Your task to perform on an android device: What's the weather like in Mexico City? Image 0: 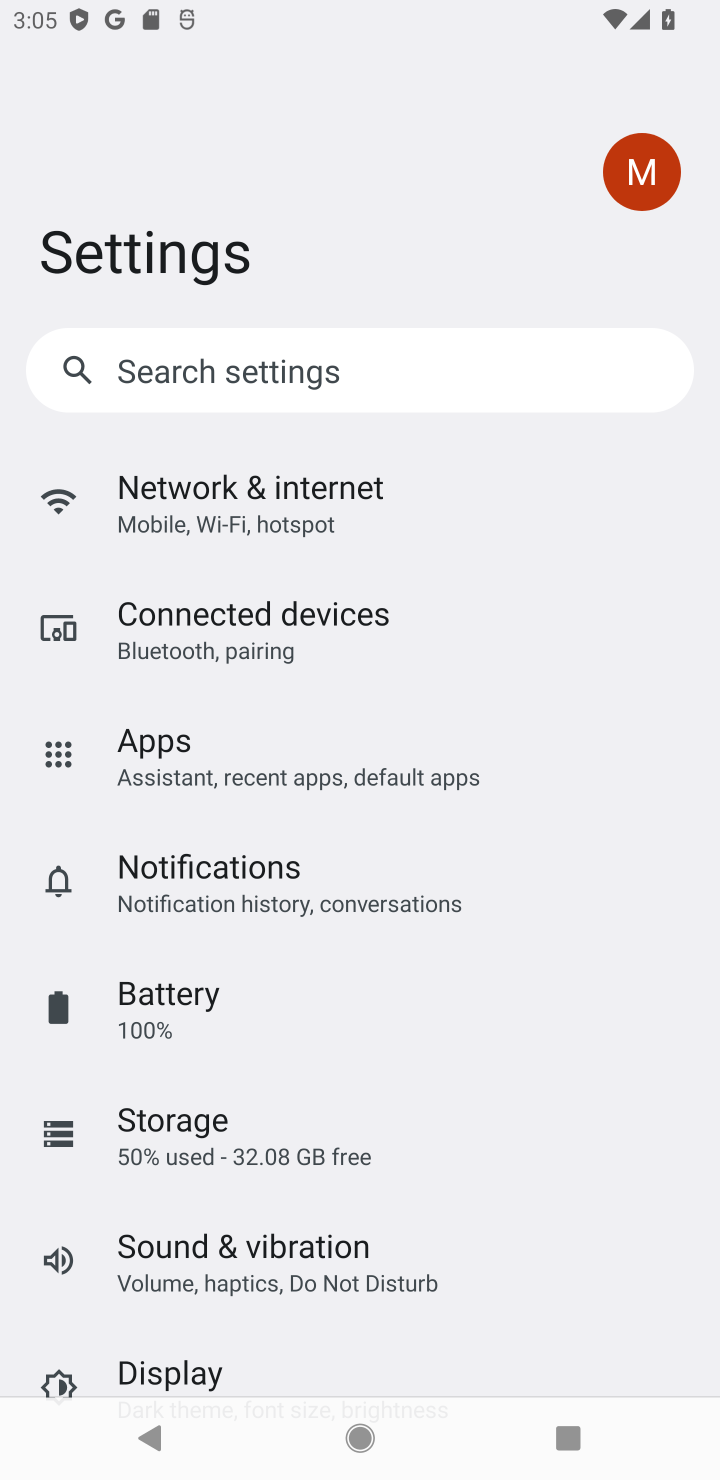
Step 0: press home button
Your task to perform on an android device: What's the weather like in Mexico City? Image 1: 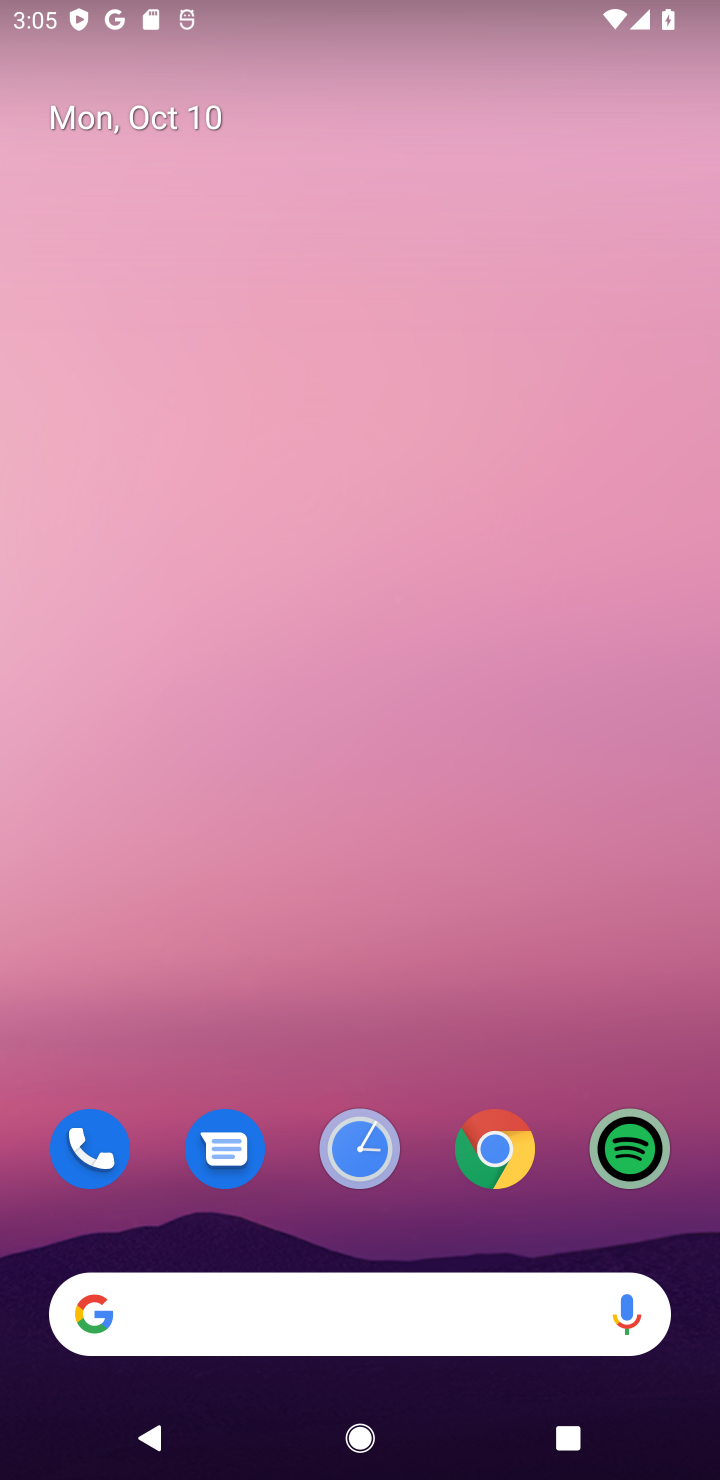
Step 1: click (378, 1332)
Your task to perform on an android device: What's the weather like in Mexico City? Image 2: 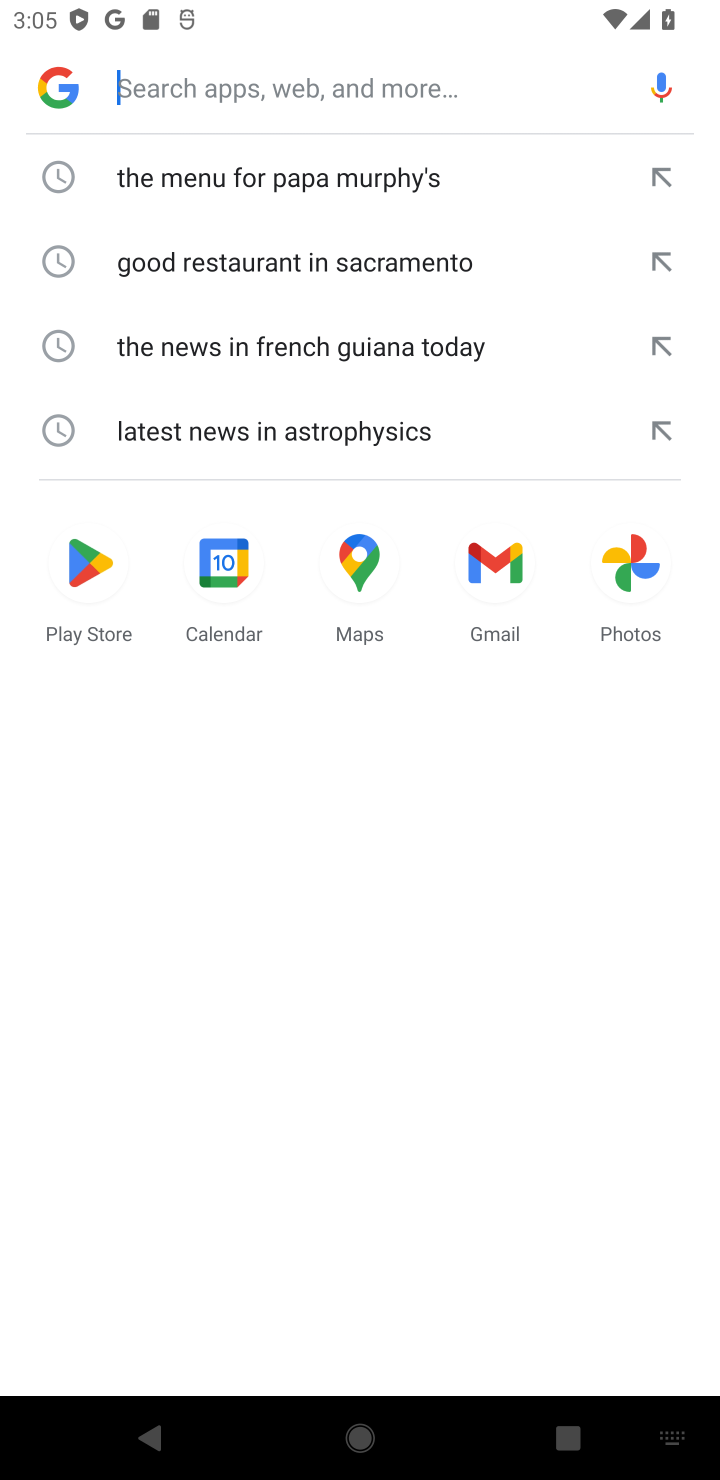
Step 2: type "the weather like in Mexico City"
Your task to perform on an android device: What's the weather like in Mexico City? Image 3: 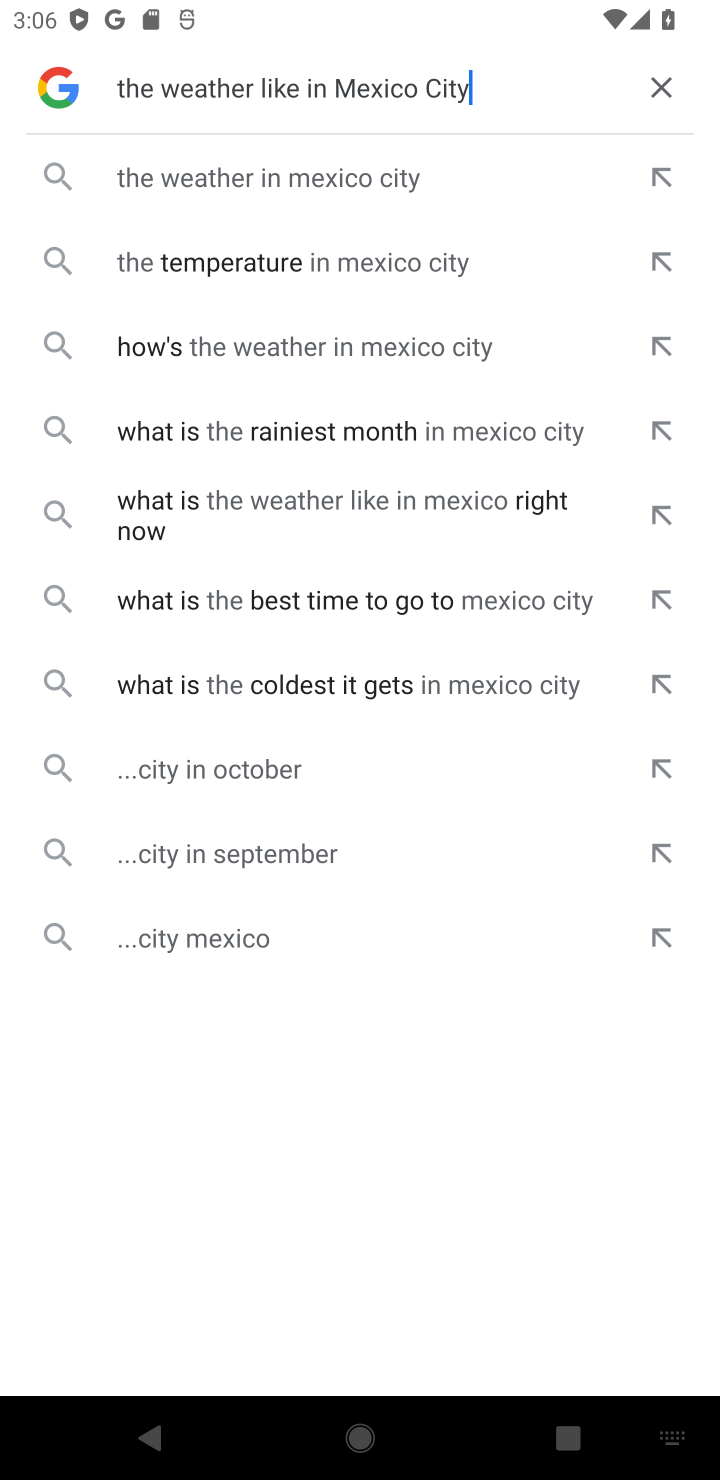
Step 3: click (335, 191)
Your task to perform on an android device: What's the weather like in Mexico City? Image 4: 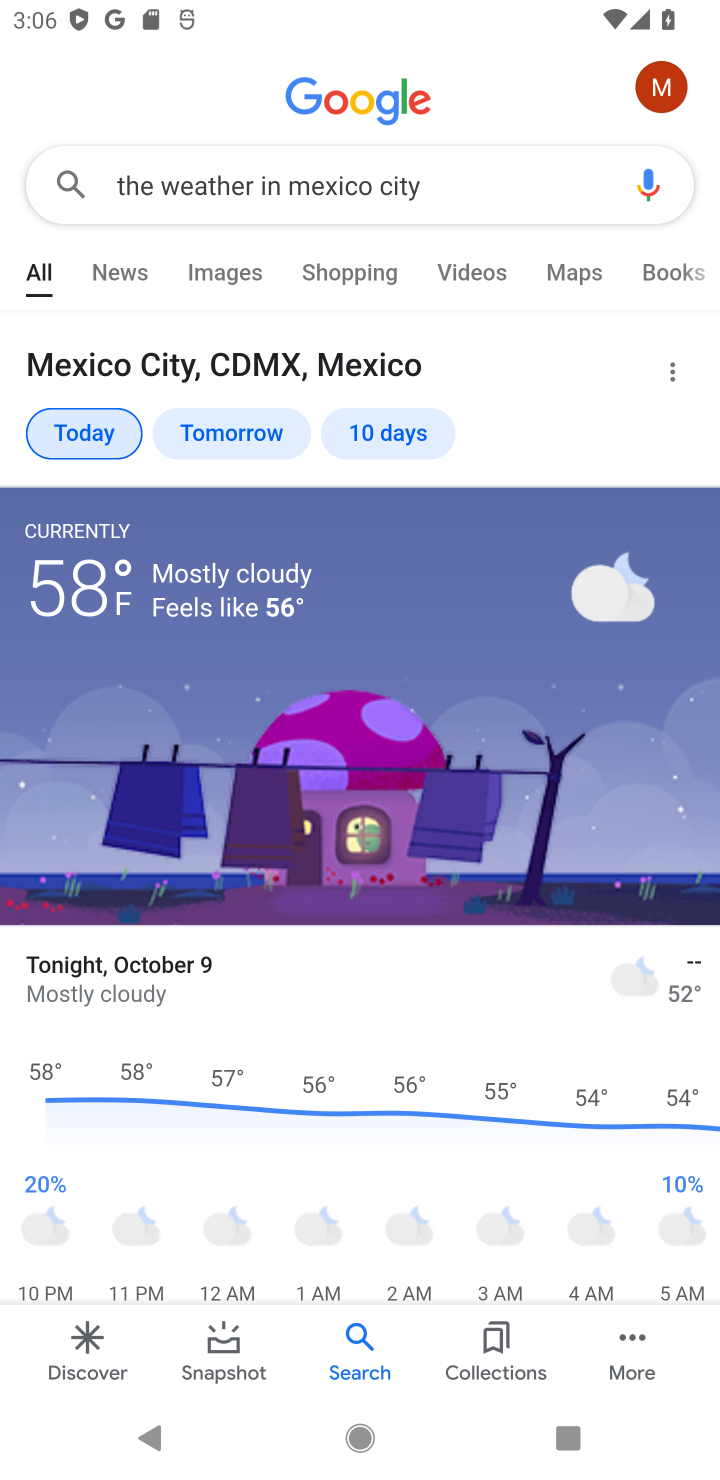
Step 4: task complete